Your task to perform on an android device: change timer sound Image 0: 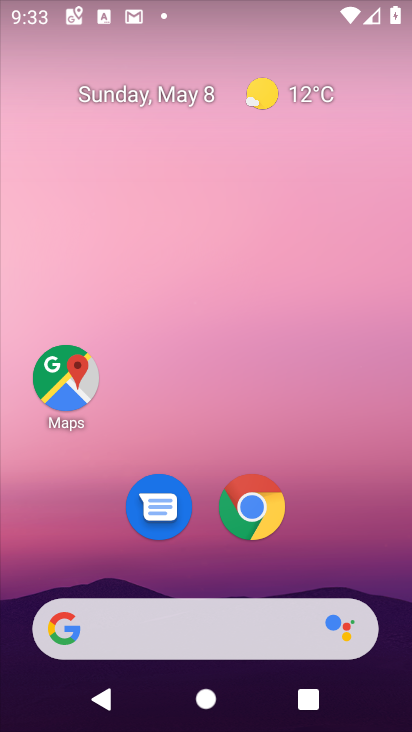
Step 0: drag from (275, 589) to (288, 19)
Your task to perform on an android device: change timer sound Image 1: 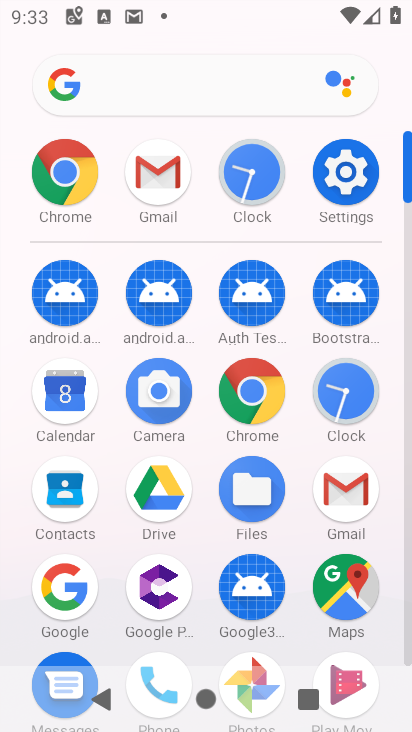
Step 1: click (348, 409)
Your task to perform on an android device: change timer sound Image 2: 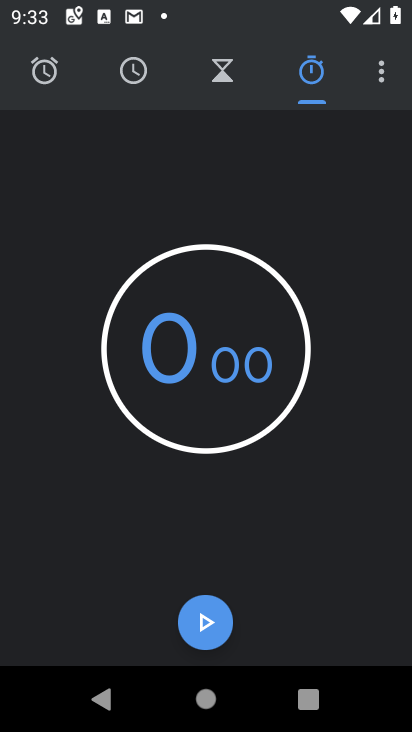
Step 2: click (391, 73)
Your task to perform on an android device: change timer sound Image 3: 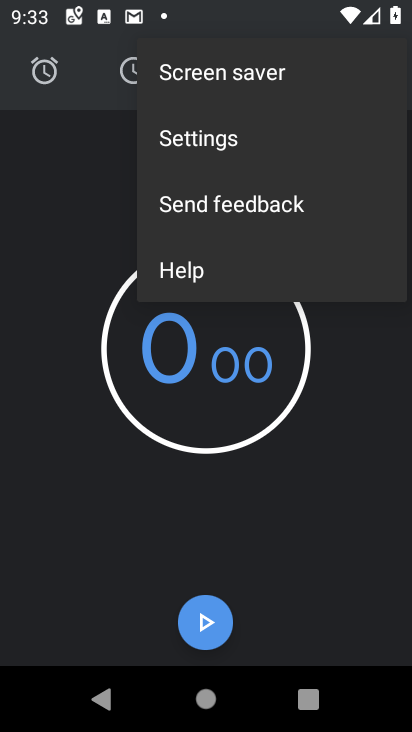
Step 3: click (245, 153)
Your task to perform on an android device: change timer sound Image 4: 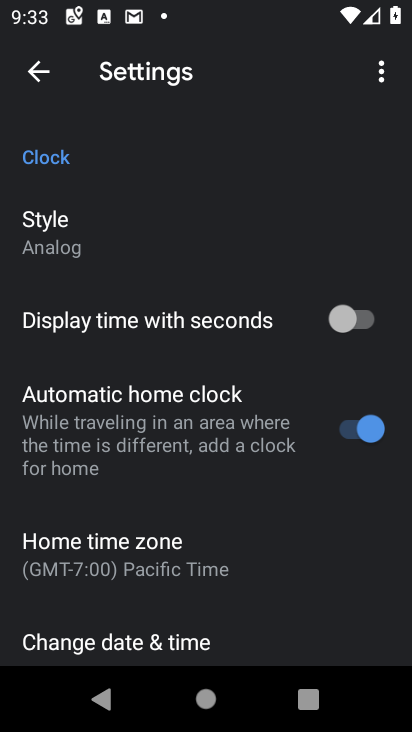
Step 4: drag from (247, 596) to (255, 16)
Your task to perform on an android device: change timer sound Image 5: 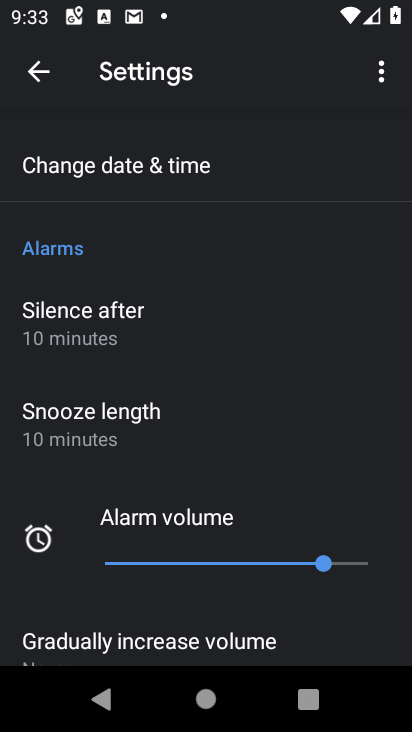
Step 5: drag from (202, 585) to (185, 35)
Your task to perform on an android device: change timer sound Image 6: 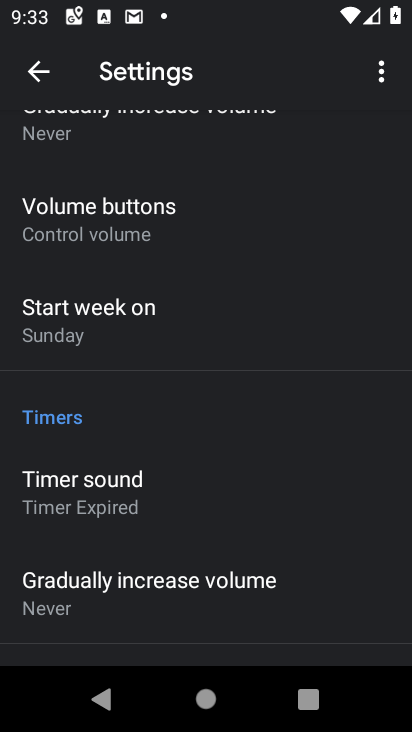
Step 6: click (123, 492)
Your task to perform on an android device: change timer sound Image 7: 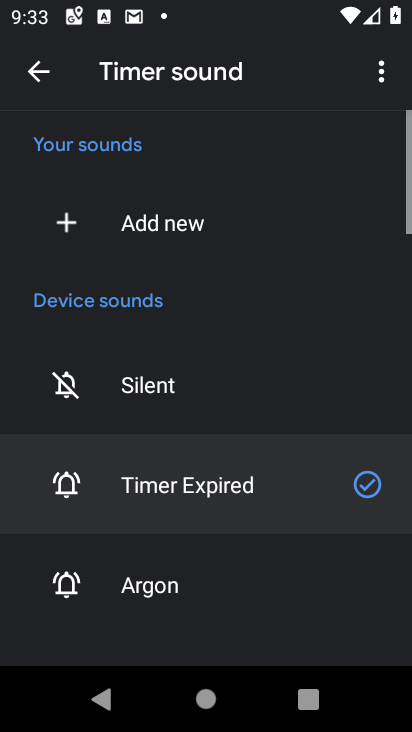
Step 7: click (138, 603)
Your task to perform on an android device: change timer sound Image 8: 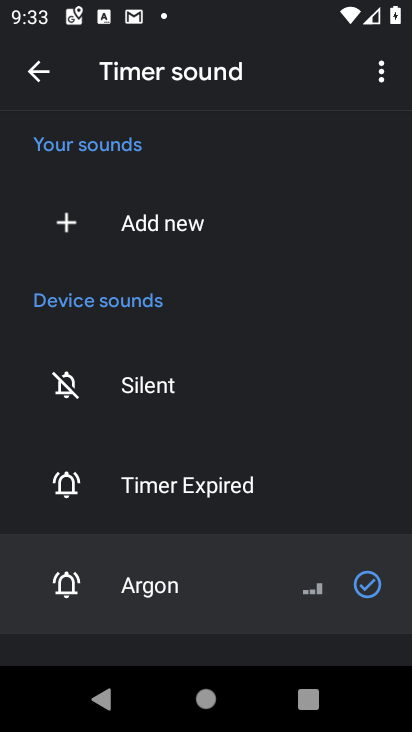
Step 8: task complete